Your task to perform on an android device: Open location settings Image 0: 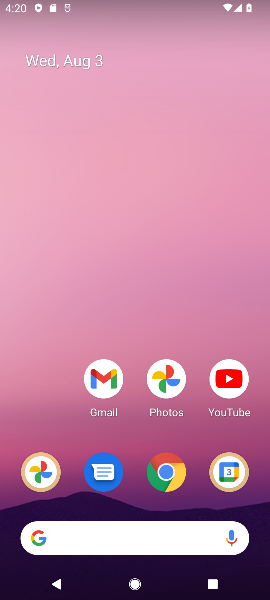
Step 0: drag from (209, 444) to (205, 55)
Your task to perform on an android device: Open location settings Image 1: 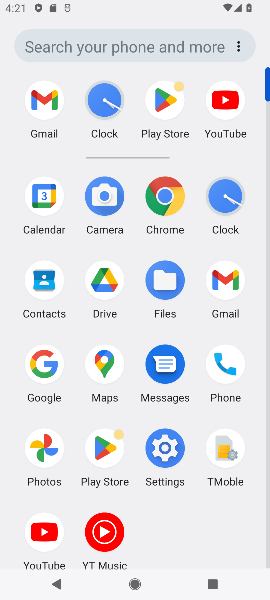
Step 1: click (157, 434)
Your task to perform on an android device: Open location settings Image 2: 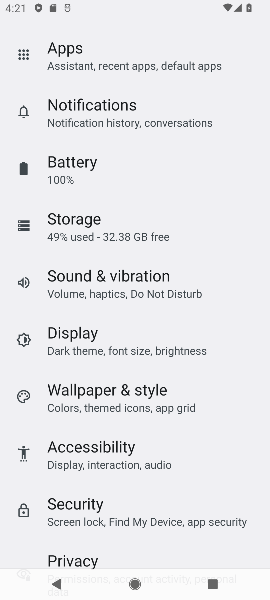
Step 2: drag from (214, 470) to (209, 125)
Your task to perform on an android device: Open location settings Image 3: 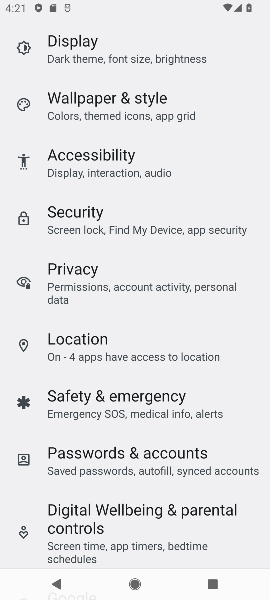
Step 3: click (71, 335)
Your task to perform on an android device: Open location settings Image 4: 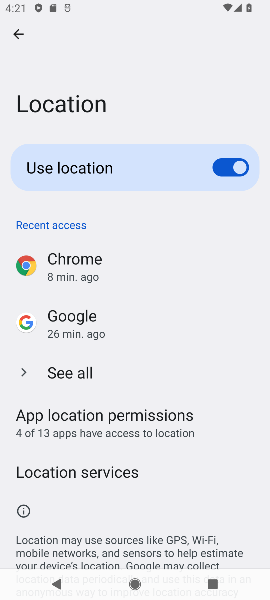
Step 4: task complete